Your task to perform on an android device: Search for seafood restaurants on Google Maps Image 0: 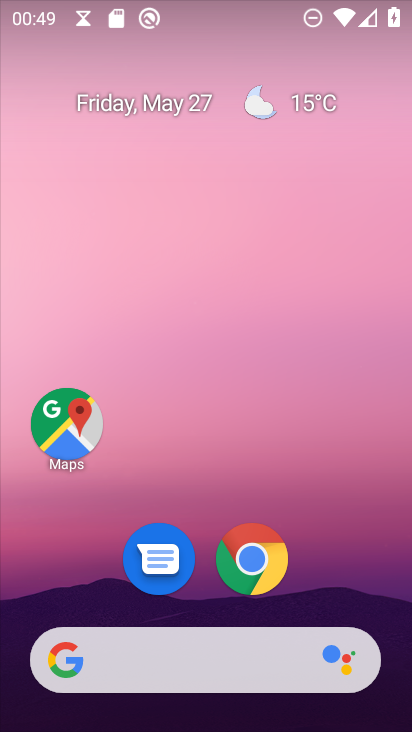
Step 0: click (65, 421)
Your task to perform on an android device: Search for seafood restaurants on Google Maps Image 1: 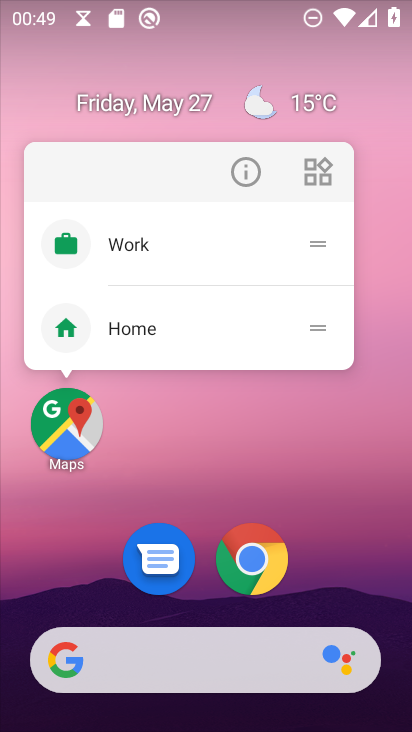
Step 1: click (44, 412)
Your task to perform on an android device: Search for seafood restaurants on Google Maps Image 2: 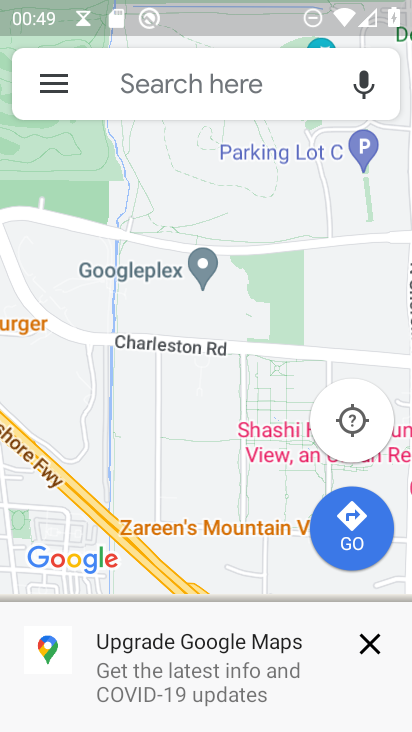
Step 2: click (37, 68)
Your task to perform on an android device: Search for seafood restaurants on Google Maps Image 3: 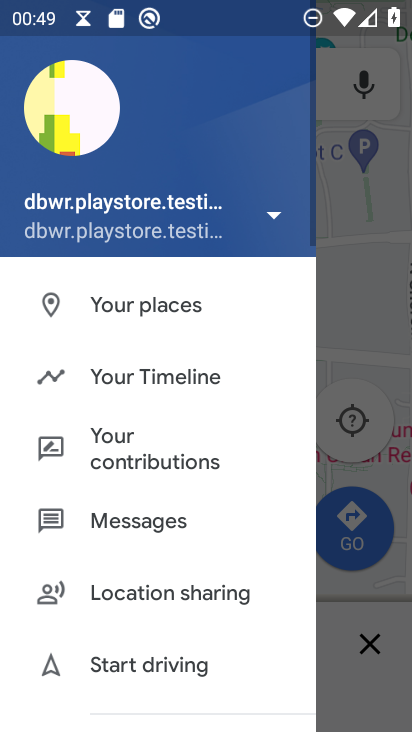
Step 3: click (396, 313)
Your task to perform on an android device: Search for seafood restaurants on Google Maps Image 4: 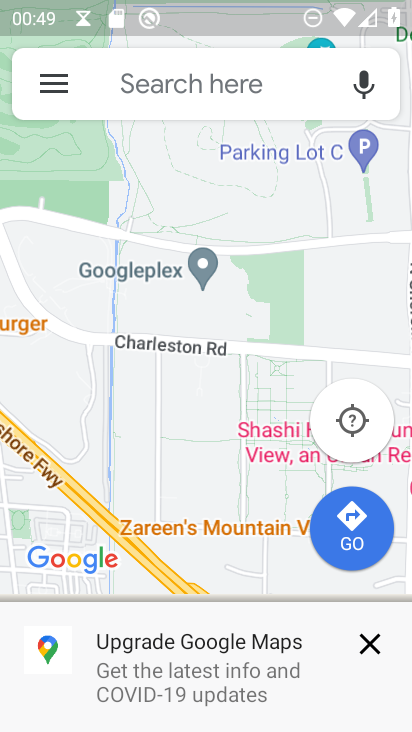
Step 4: click (241, 70)
Your task to perform on an android device: Search for seafood restaurants on Google Maps Image 5: 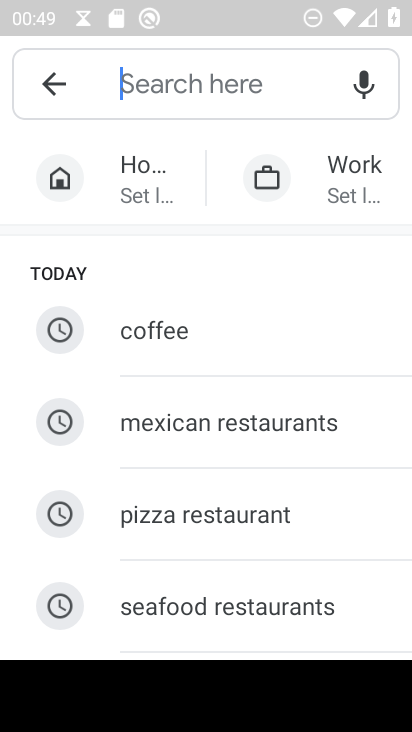
Step 5: click (316, 594)
Your task to perform on an android device: Search for seafood restaurants on Google Maps Image 6: 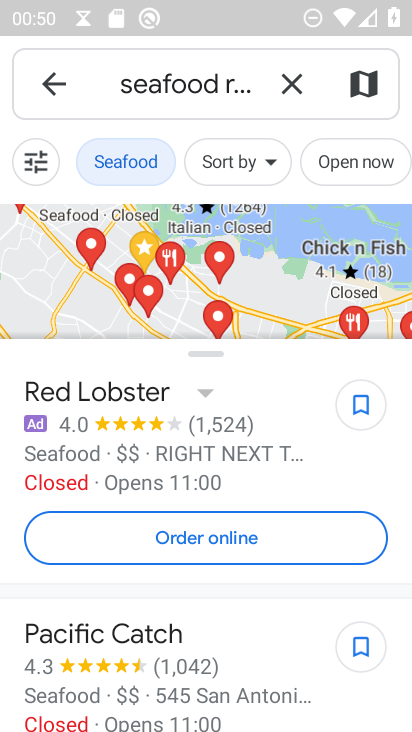
Step 6: task complete